Your task to perform on an android device: turn on showing notifications on the lock screen Image 0: 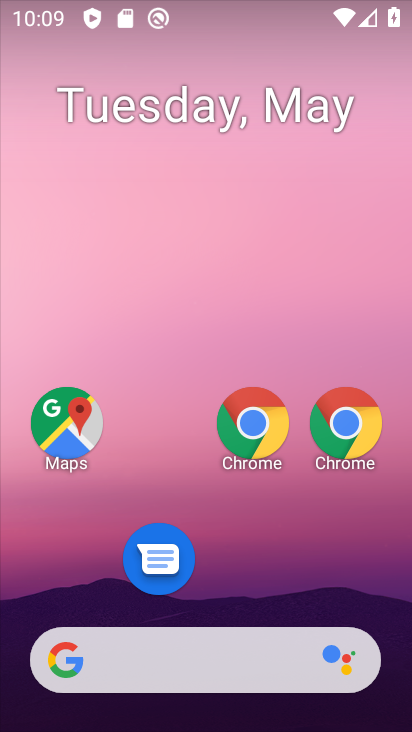
Step 0: drag from (330, 652) to (324, 171)
Your task to perform on an android device: turn on showing notifications on the lock screen Image 1: 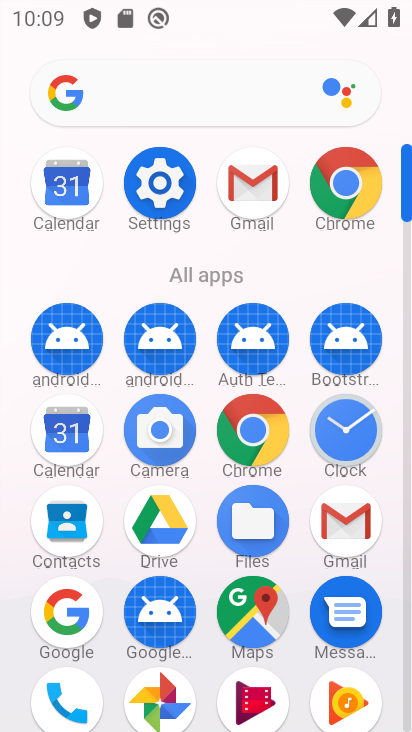
Step 1: click (157, 182)
Your task to perform on an android device: turn on showing notifications on the lock screen Image 2: 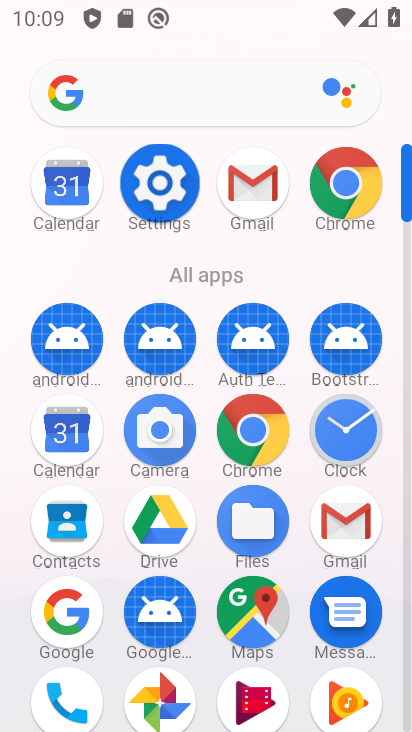
Step 2: click (157, 183)
Your task to perform on an android device: turn on showing notifications on the lock screen Image 3: 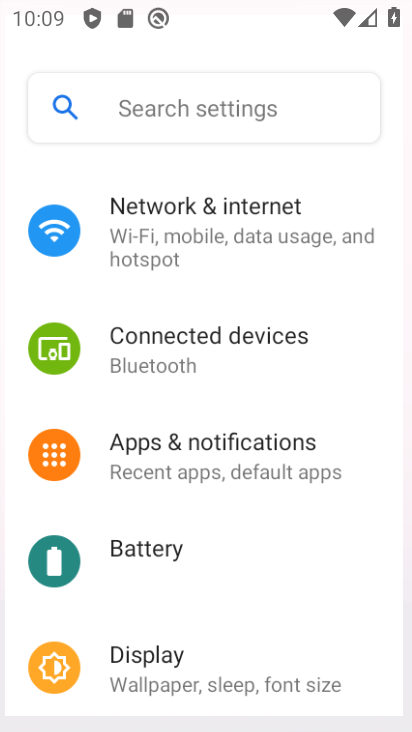
Step 3: click (157, 183)
Your task to perform on an android device: turn on showing notifications on the lock screen Image 4: 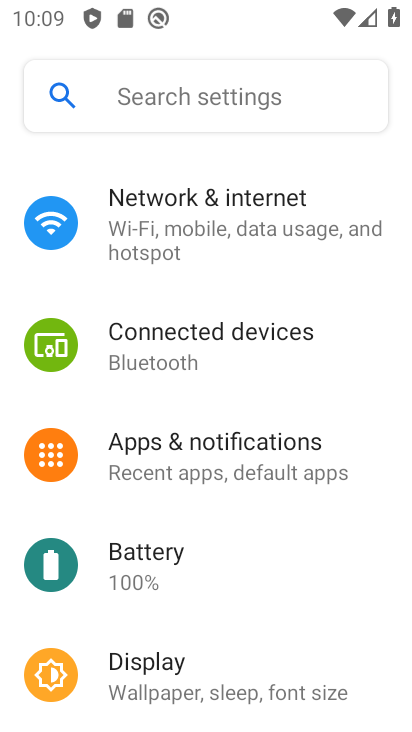
Step 4: click (158, 184)
Your task to perform on an android device: turn on showing notifications on the lock screen Image 5: 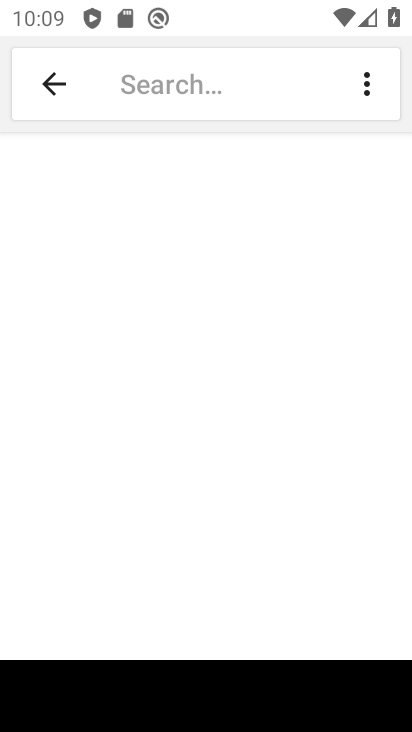
Step 5: click (53, 82)
Your task to perform on an android device: turn on showing notifications on the lock screen Image 6: 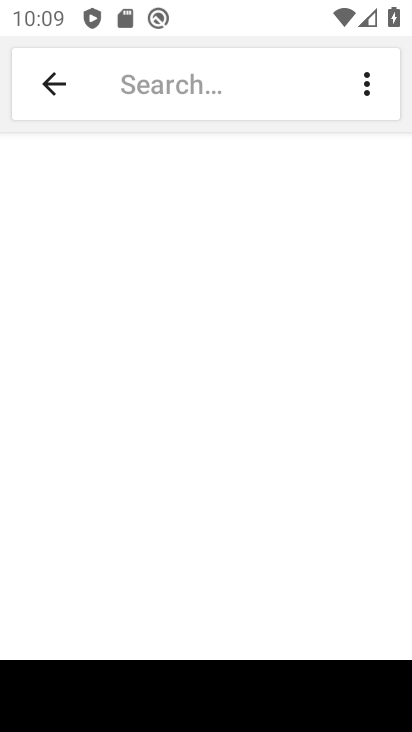
Step 6: click (51, 80)
Your task to perform on an android device: turn on showing notifications on the lock screen Image 7: 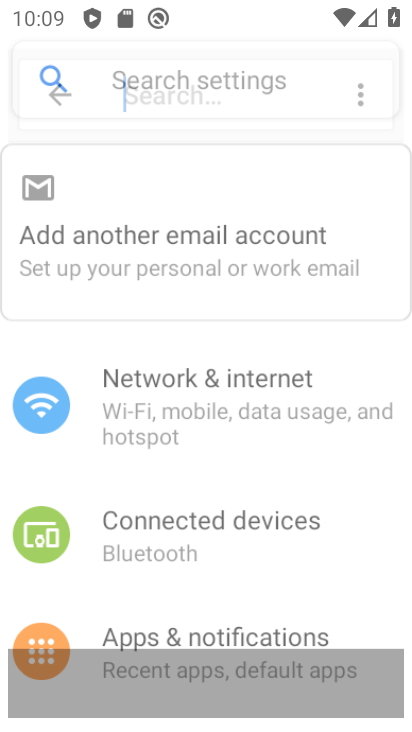
Step 7: click (51, 80)
Your task to perform on an android device: turn on showing notifications on the lock screen Image 8: 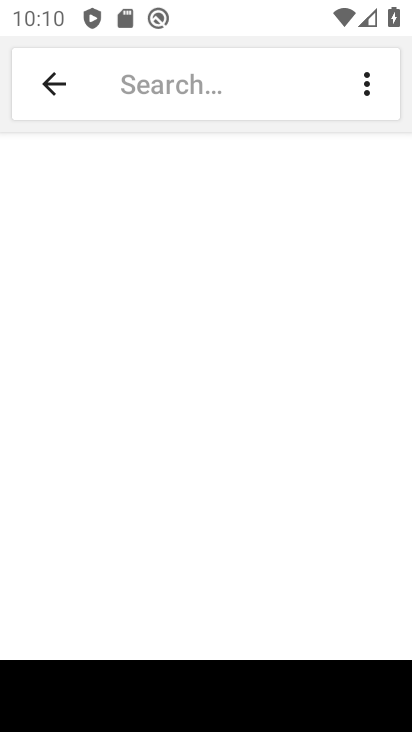
Step 8: click (42, 90)
Your task to perform on an android device: turn on showing notifications on the lock screen Image 9: 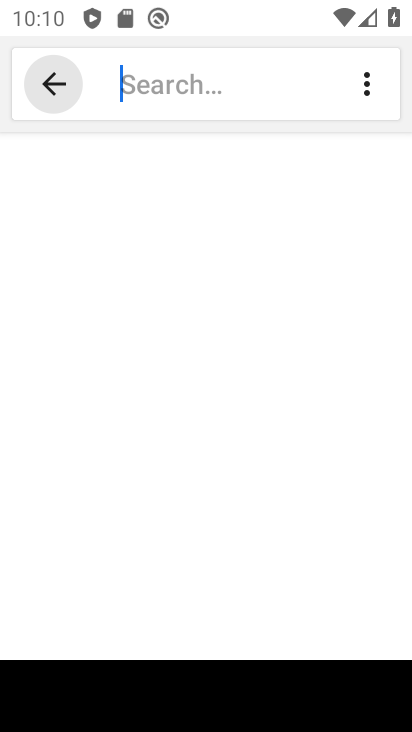
Step 9: click (42, 90)
Your task to perform on an android device: turn on showing notifications on the lock screen Image 10: 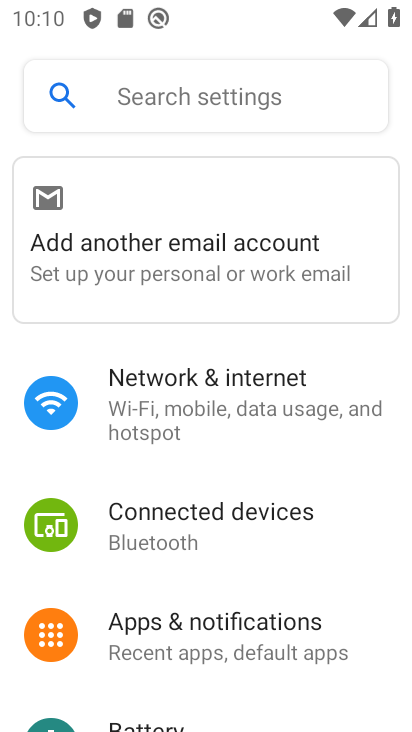
Step 10: click (207, 392)
Your task to perform on an android device: turn on showing notifications on the lock screen Image 11: 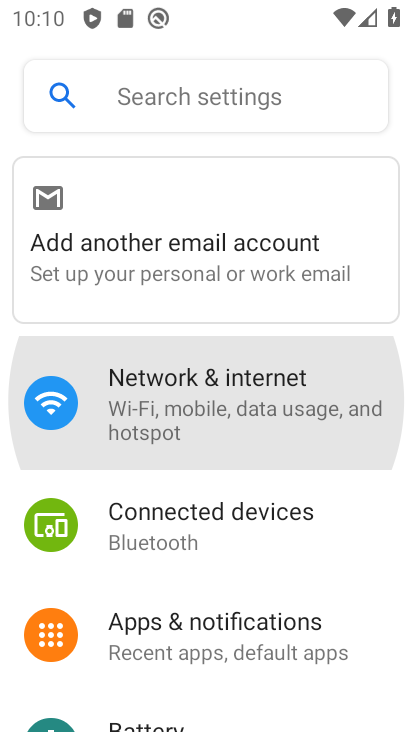
Step 11: click (207, 392)
Your task to perform on an android device: turn on showing notifications on the lock screen Image 12: 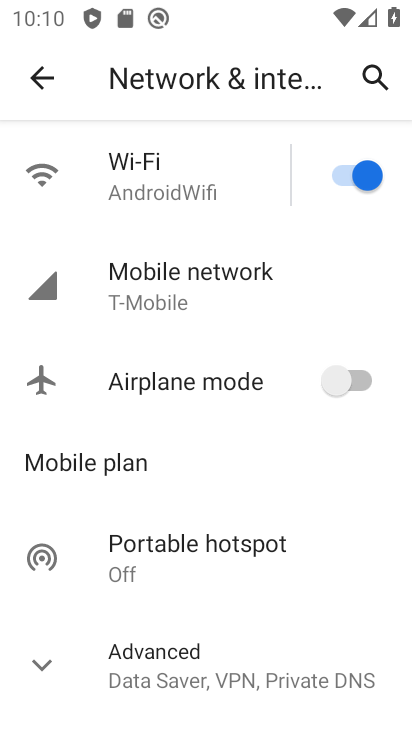
Step 12: click (43, 83)
Your task to perform on an android device: turn on showing notifications on the lock screen Image 13: 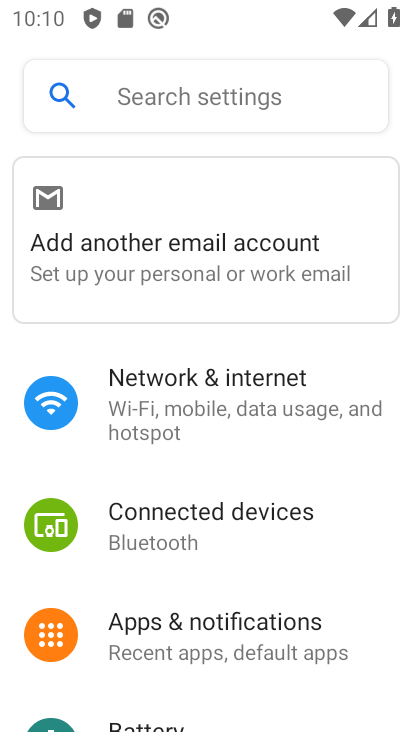
Step 13: click (231, 637)
Your task to perform on an android device: turn on showing notifications on the lock screen Image 14: 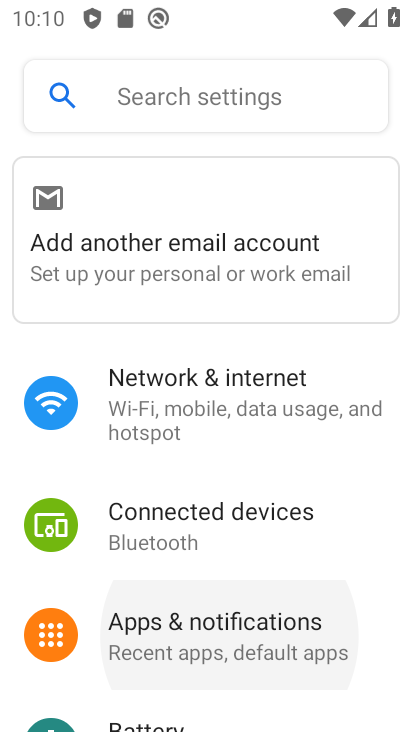
Step 14: click (229, 638)
Your task to perform on an android device: turn on showing notifications on the lock screen Image 15: 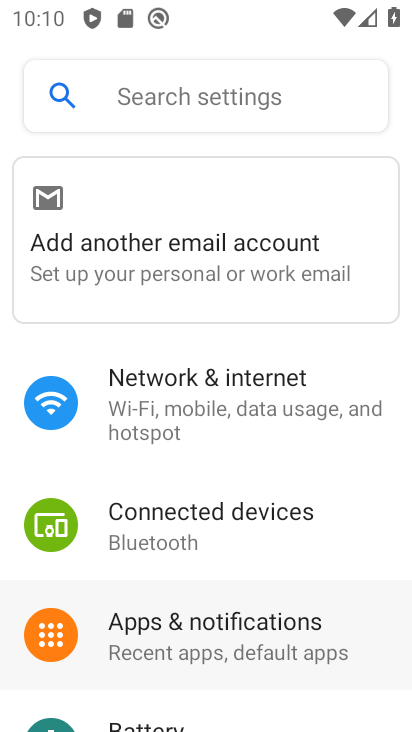
Step 15: click (229, 638)
Your task to perform on an android device: turn on showing notifications on the lock screen Image 16: 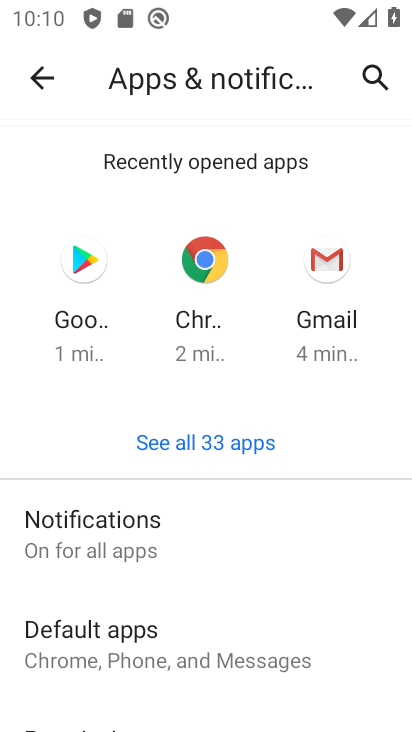
Step 16: click (92, 541)
Your task to perform on an android device: turn on showing notifications on the lock screen Image 17: 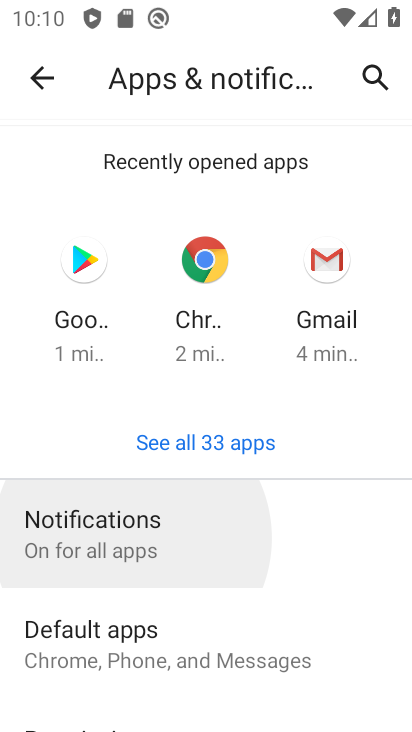
Step 17: click (92, 541)
Your task to perform on an android device: turn on showing notifications on the lock screen Image 18: 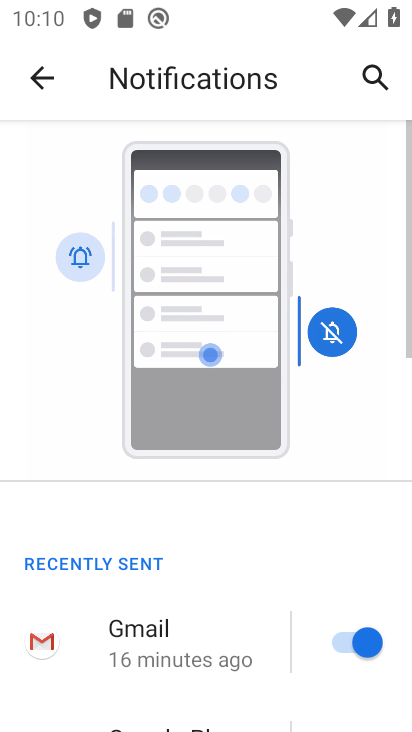
Step 18: drag from (174, 575) to (174, 146)
Your task to perform on an android device: turn on showing notifications on the lock screen Image 19: 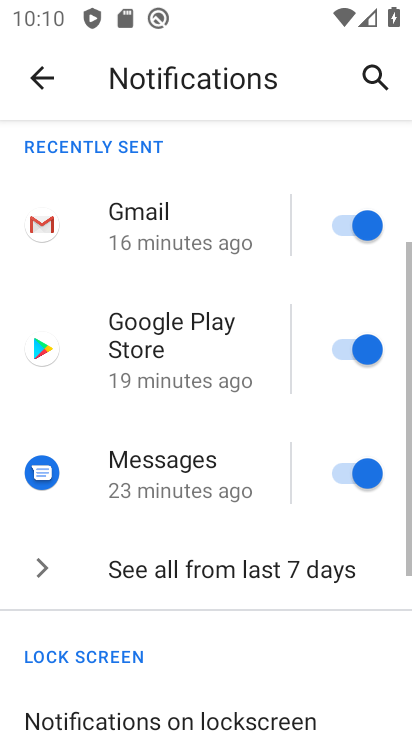
Step 19: click (224, 137)
Your task to perform on an android device: turn on showing notifications on the lock screen Image 20: 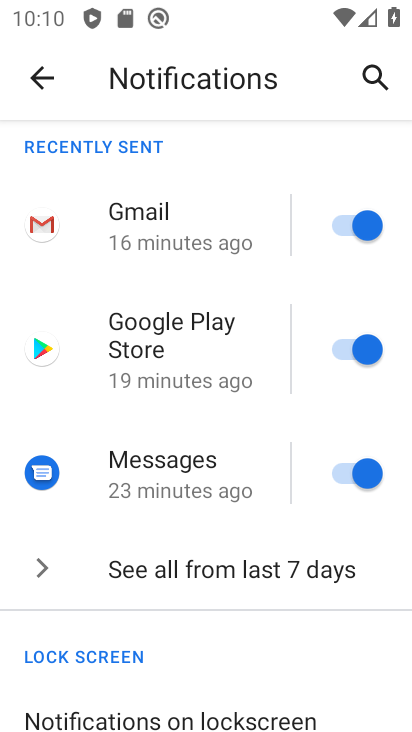
Step 20: click (222, 237)
Your task to perform on an android device: turn on showing notifications on the lock screen Image 21: 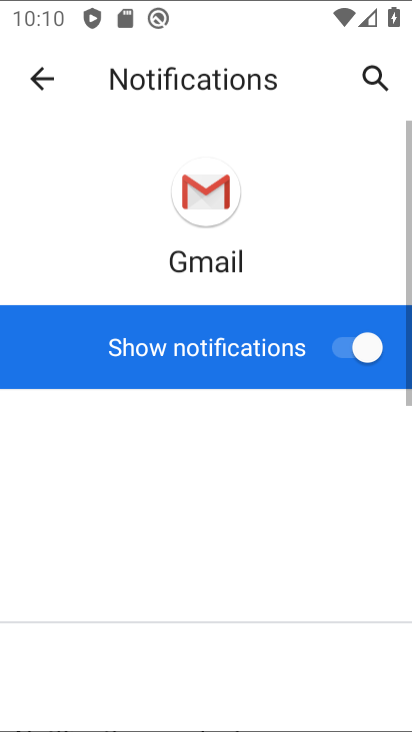
Step 21: drag from (187, 629) to (157, 198)
Your task to perform on an android device: turn on showing notifications on the lock screen Image 22: 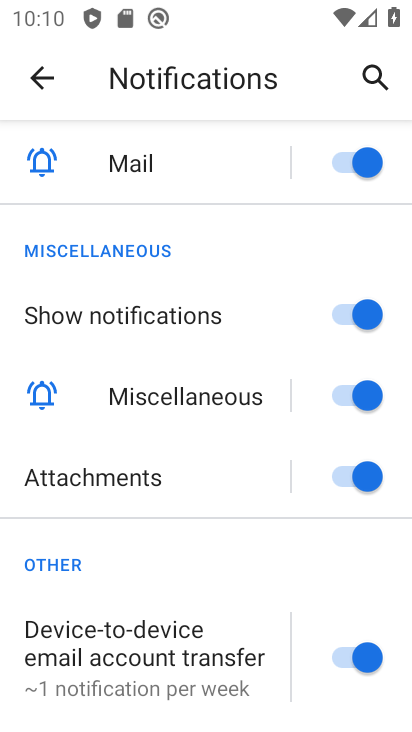
Step 22: click (32, 77)
Your task to perform on an android device: turn on showing notifications on the lock screen Image 23: 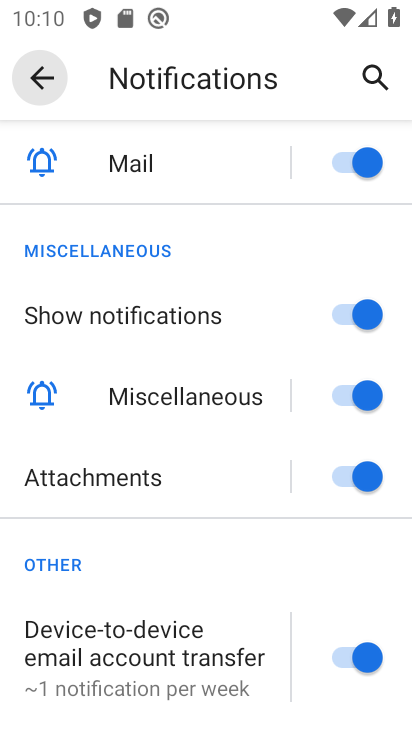
Step 23: click (33, 77)
Your task to perform on an android device: turn on showing notifications on the lock screen Image 24: 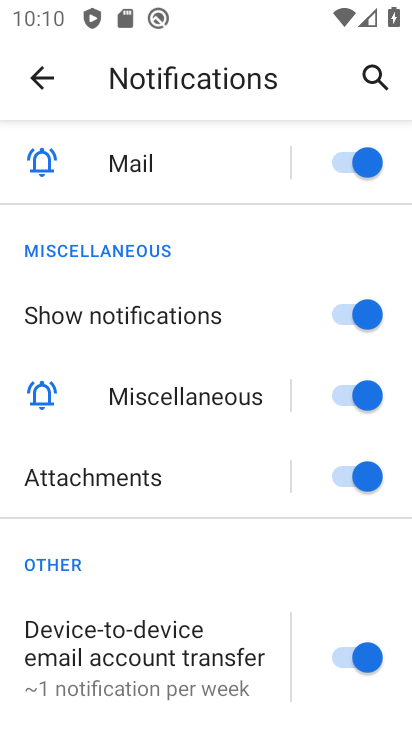
Step 24: click (33, 77)
Your task to perform on an android device: turn on showing notifications on the lock screen Image 25: 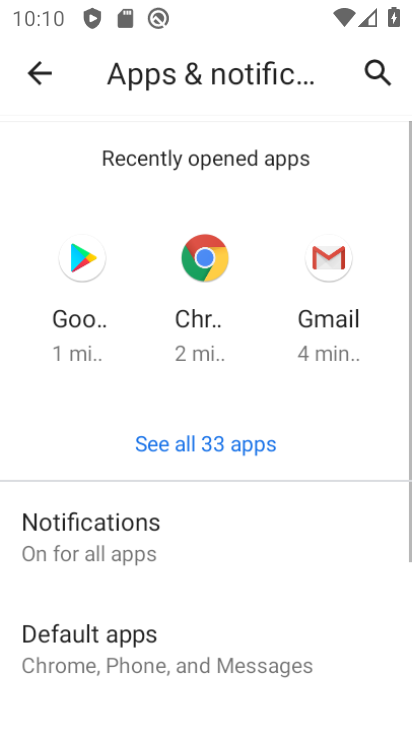
Step 25: task complete